Your task to perform on an android device: Check the weather Image 0: 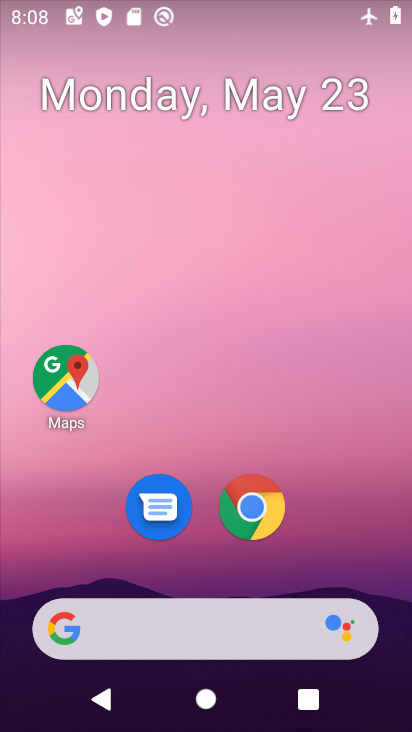
Step 0: drag from (317, 549) to (271, 94)
Your task to perform on an android device: Check the weather Image 1: 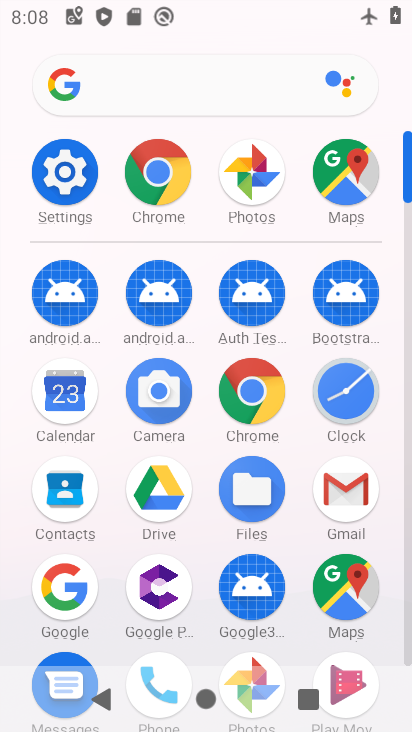
Step 1: click (279, 411)
Your task to perform on an android device: Check the weather Image 2: 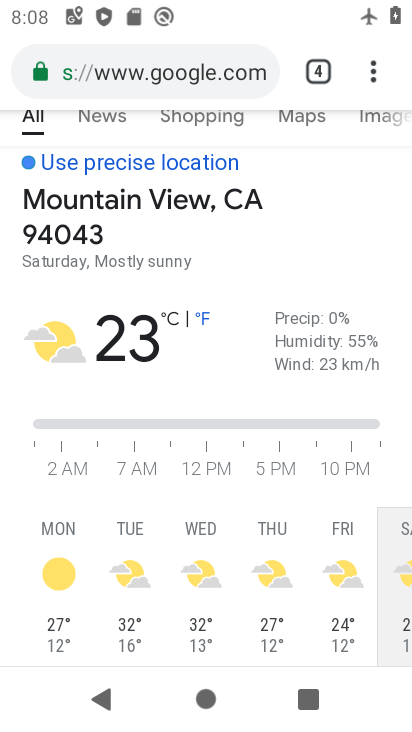
Step 2: click (148, 68)
Your task to perform on an android device: Check the weather Image 3: 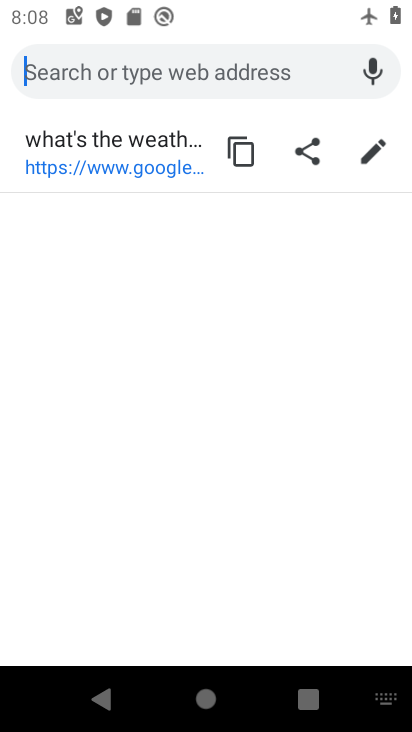
Step 3: type "check the weather "
Your task to perform on an android device: Check the weather Image 4: 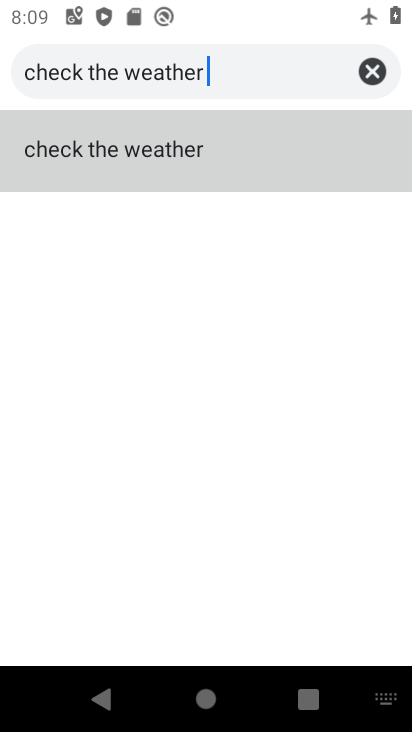
Step 4: click (174, 149)
Your task to perform on an android device: Check the weather Image 5: 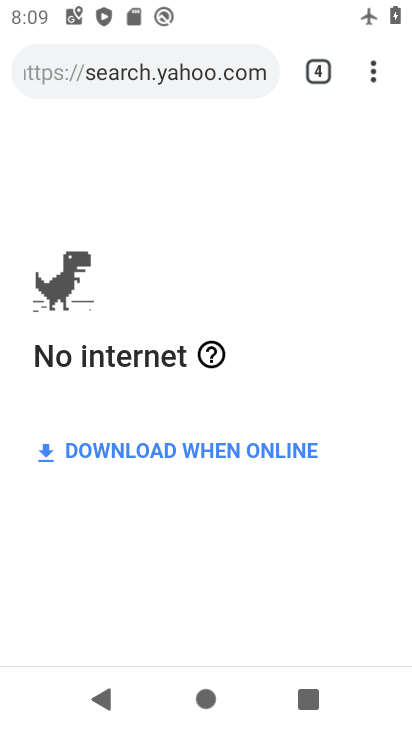
Step 5: task complete